Your task to perform on an android device: Go to eBay Image 0: 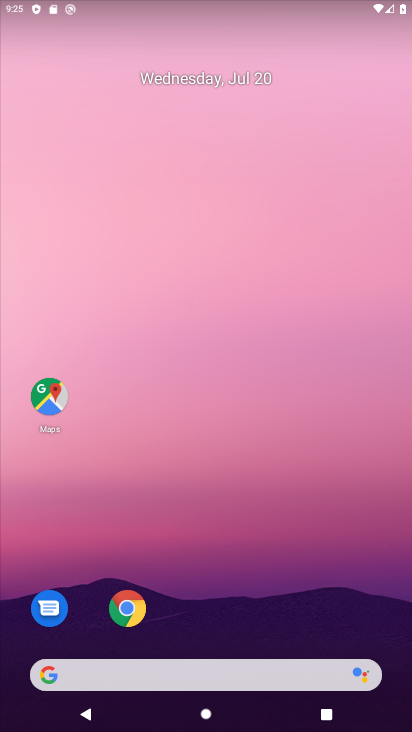
Step 0: drag from (225, 75) to (235, 117)
Your task to perform on an android device: Go to eBay Image 1: 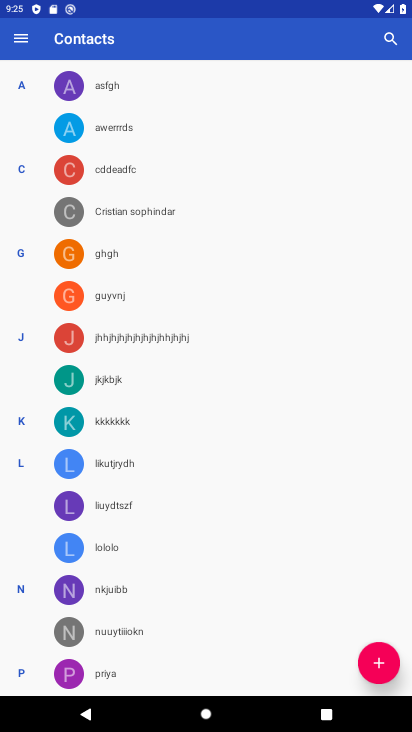
Step 1: press back button
Your task to perform on an android device: Go to eBay Image 2: 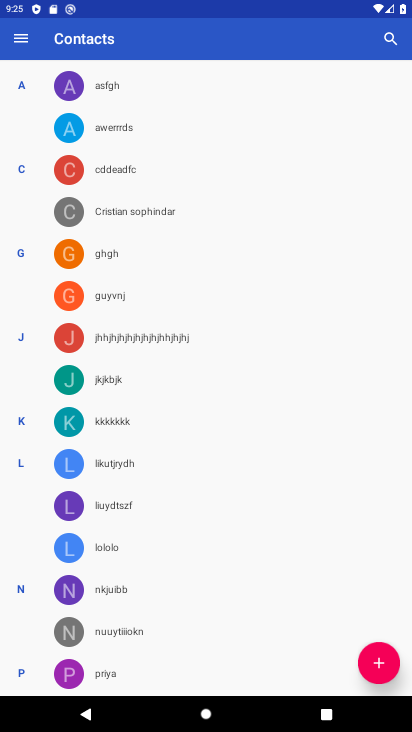
Step 2: press back button
Your task to perform on an android device: Go to eBay Image 3: 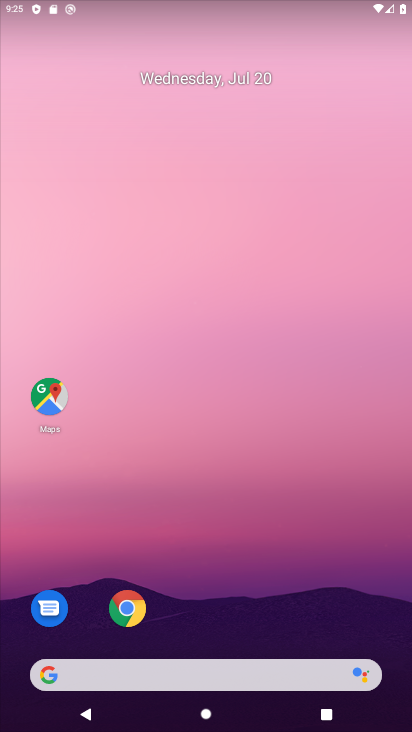
Step 3: drag from (232, 661) to (166, 278)
Your task to perform on an android device: Go to eBay Image 4: 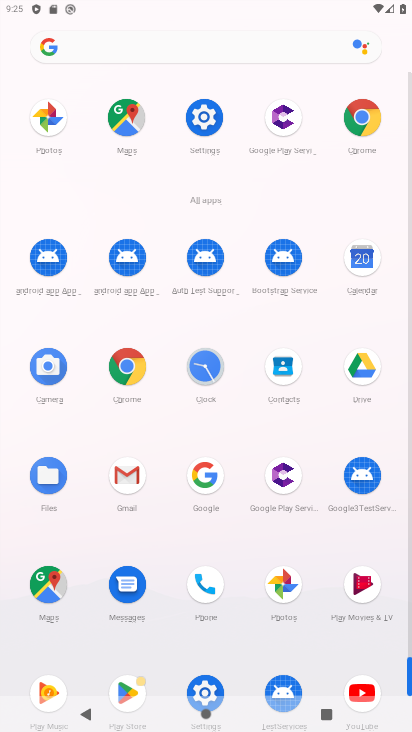
Step 4: click (195, 122)
Your task to perform on an android device: Go to eBay Image 5: 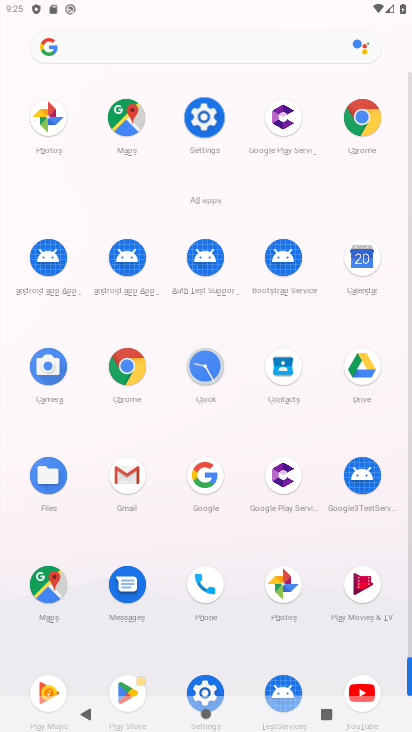
Step 5: click (196, 119)
Your task to perform on an android device: Go to eBay Image 6: 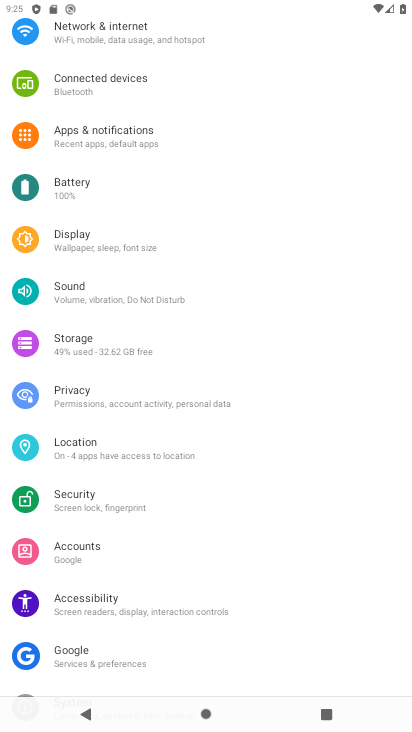
Step 6: click (70, 238)
Your task to perform on an android device: Go to eBay Image 7: 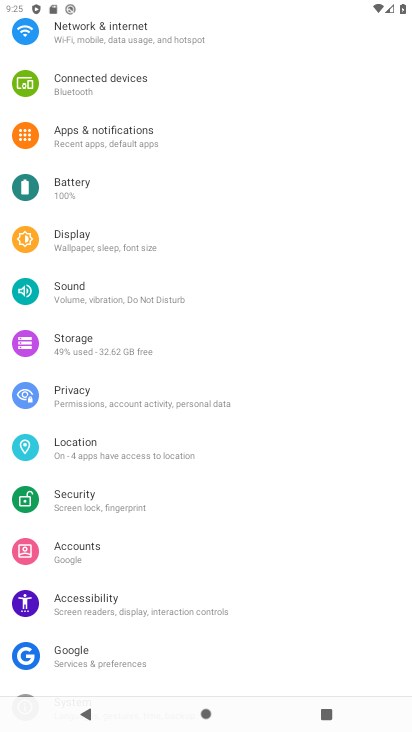
Step 7: click (70, 238)
Your task to perform on an android device: Go to eBay Image 8: 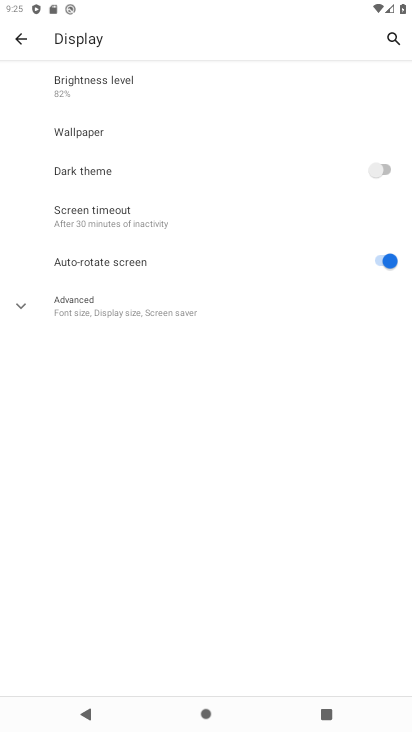
Step 8: click (94, 295)
Your task to perform on an android device: Go to eBay Image 9: 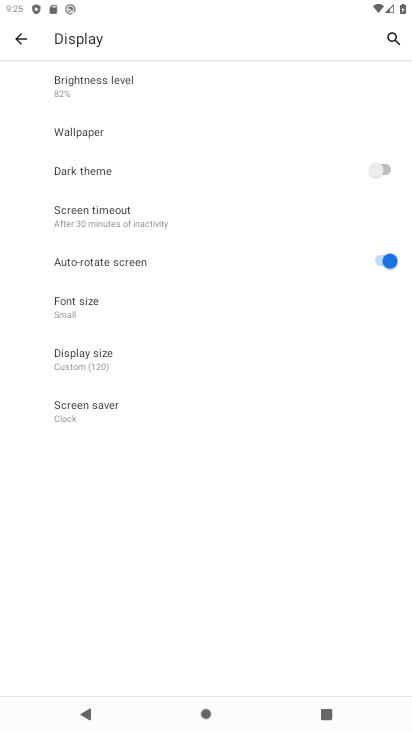
Step 9: click (72, 320)
Your task to perform on an android device: Go to eBay Image 10: 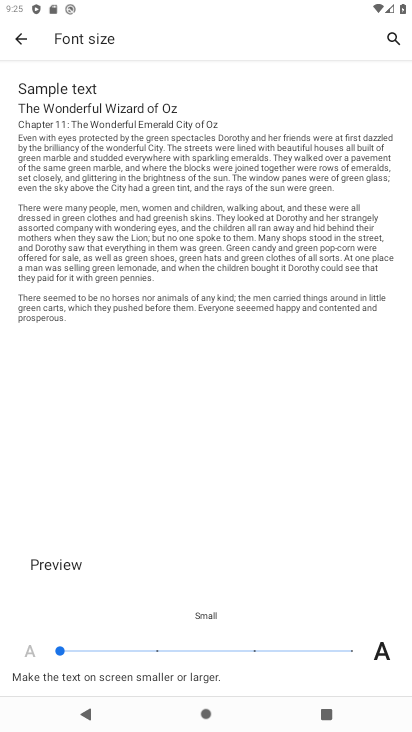
Step 10: click (348, 647)
Your task to perform on an android device: Go to eBay Image 11: 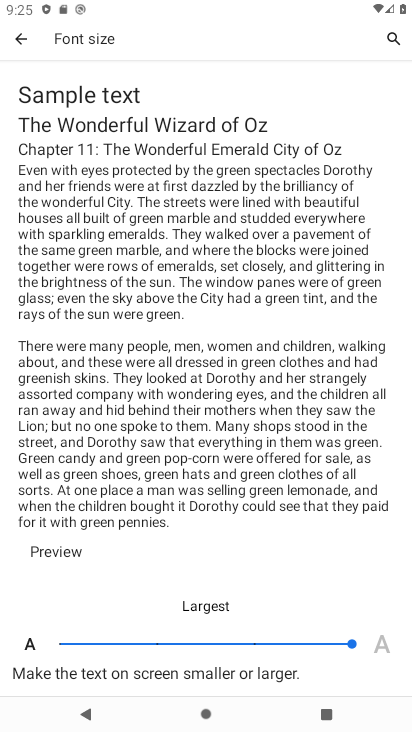
Step 11: task complete